Your task to perform on an android device: toggle airplane mode Image 0: 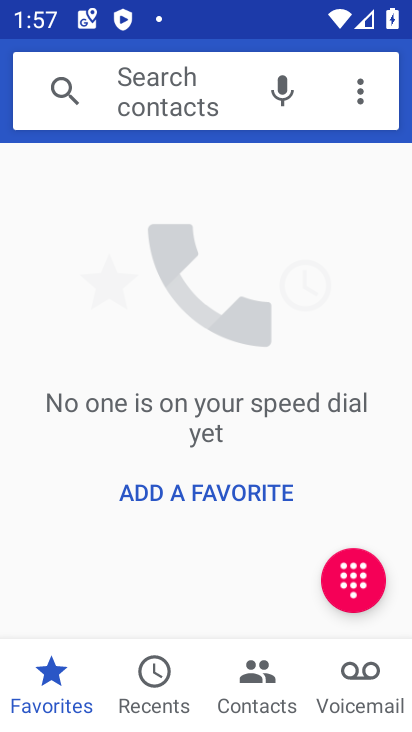
Step 0: press home button
Your task to perform on an android device: toggle airplane mode Image 1: 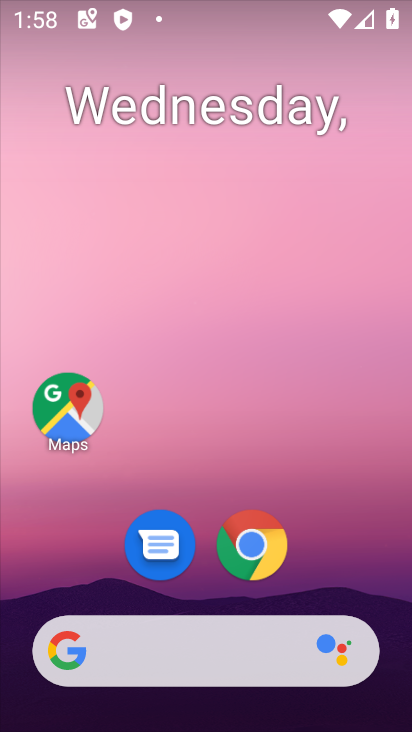
Step 1: drag from (290, 313) to (281, 83)
Your task to perform on an android device: toggle airplane mode Image 2: 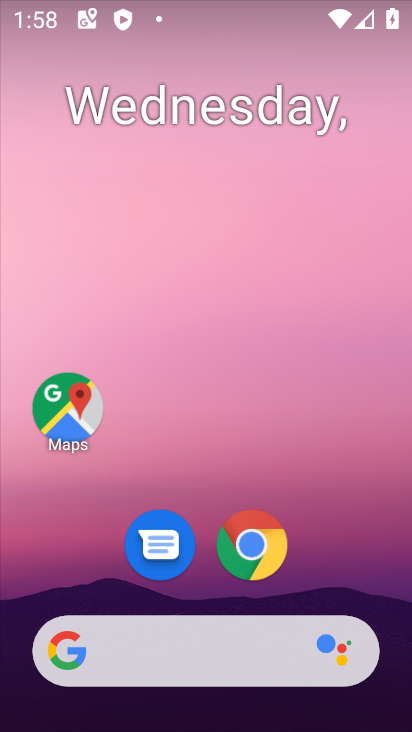
Step 2: drag from (347, 525) to (335, 70)
Your task to perform on an android device: toggle airplane mode Image 3: 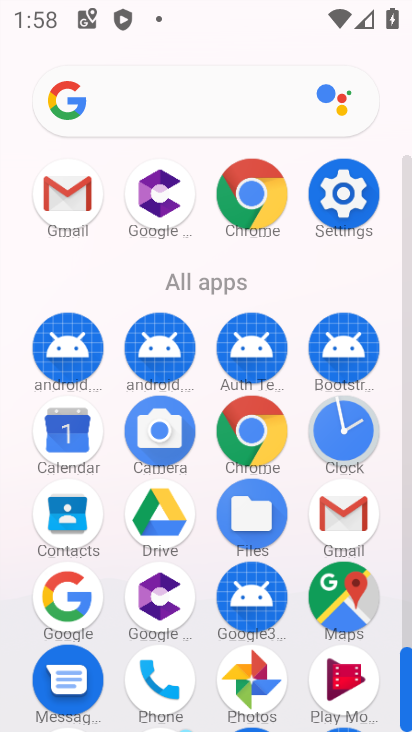
Step 3: click (337, 190)
Your task to perform on an android device: toggle airplane mode Image 4: 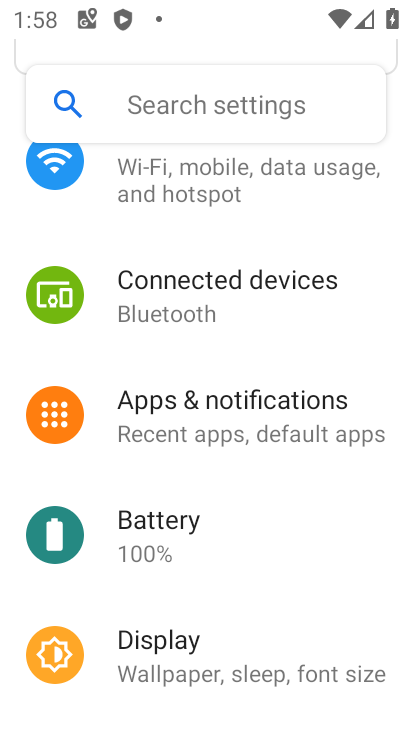
Step 4: drag from (265, 192) to (217, 657)
Your task to perform on an android device: toggle airplane mode Image 5: 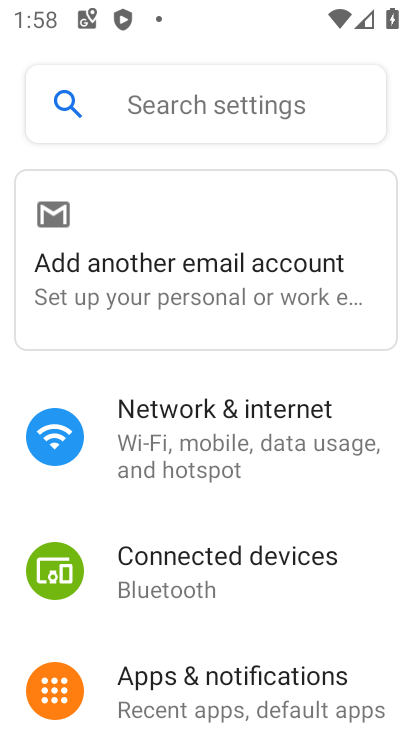
Step 5: click (221, 411)
Your task to perform on an android device: toggle airplane mode Image 6: 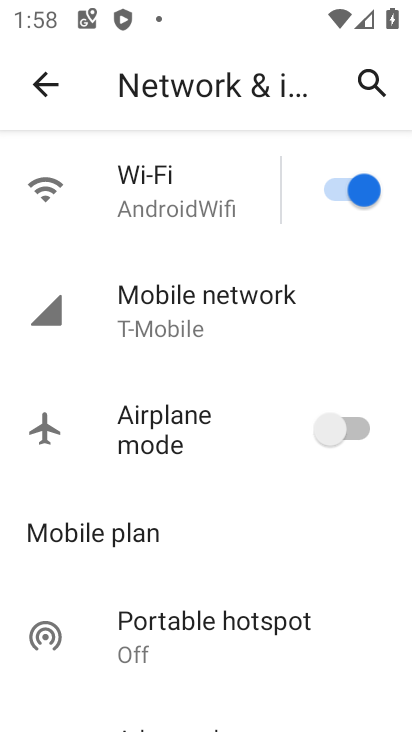
Step 6: click (323, 435)
Your task to perform on an android device: toggle airplane mode Image 7: 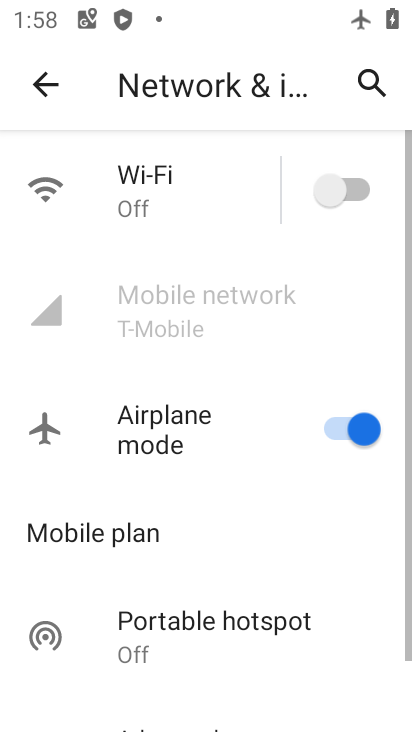
Step 7: task complete